Your task to perform on an android device: What's on my calendar tomorrow? Image 0: 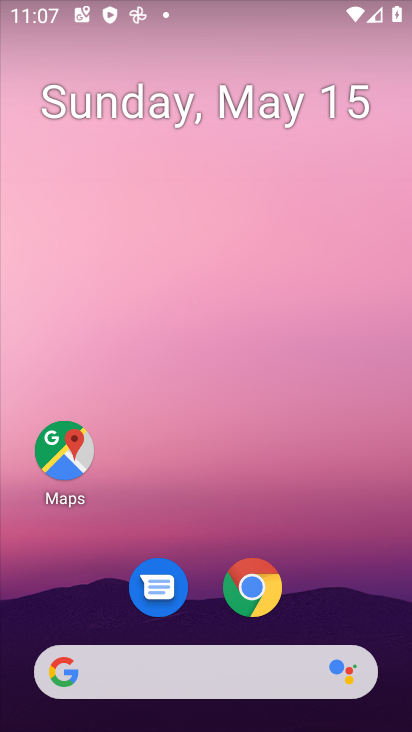
Step 0: drag from (378, 620) to (319, 90)
Your task to perform on an android device: What's on my calendar tomorrow? Image 1: 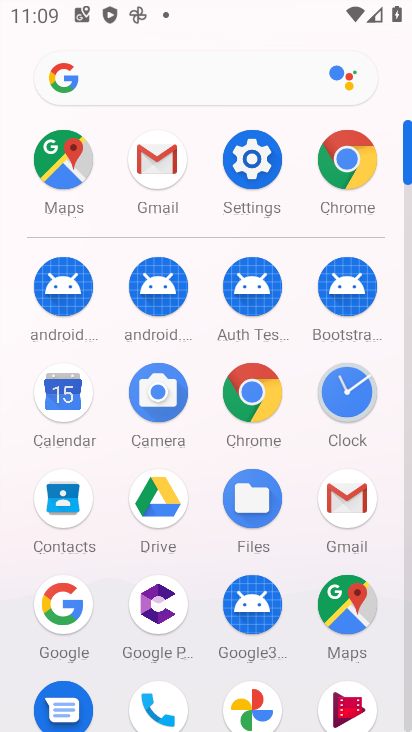
Step 1: click (68, 400)
Your task to perform on an android device: What's on my calendar tomorrow? Image 2: 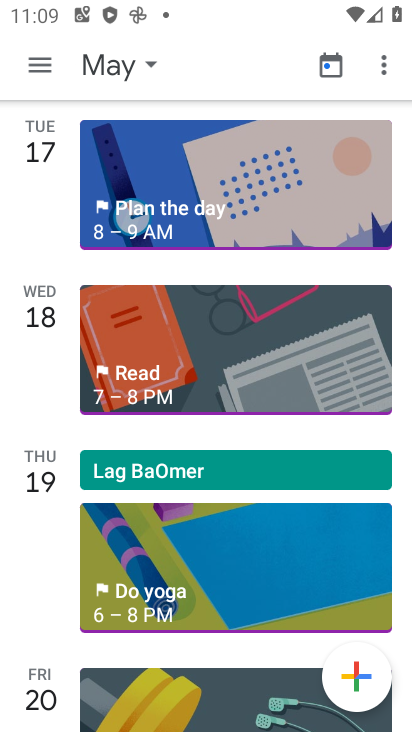
Step 2: click (115, 74)
Your task to perform on an android device: What's on my calendar tomorrow? Image 3: 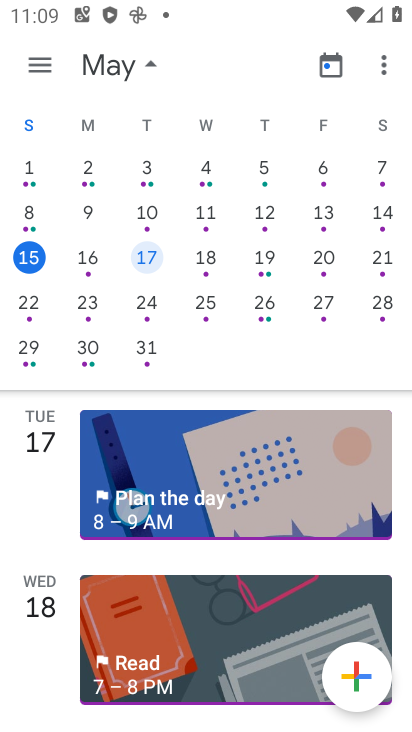
Step 3: click (154, 257)
Your task to perform on an android device: What's on my calendar tomorrow? Image 4: 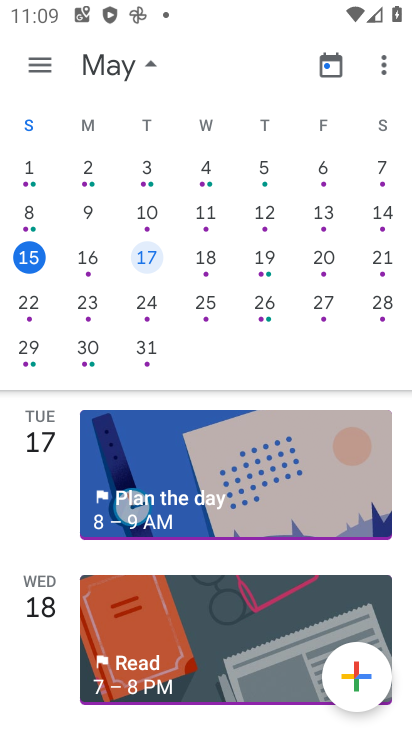
Step 4: click (244, 455)
Your task to perform on an android device: What's on my calendar tomorrow? Image 5: 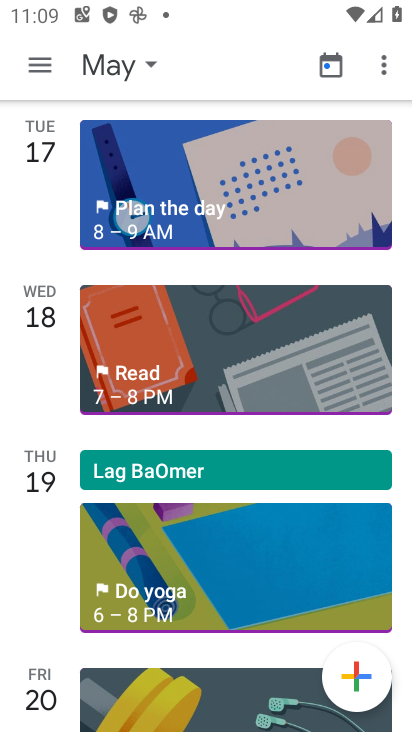
Step 5: task complete